Your task to perform on an android device: Toggle the flashlight Image 0: 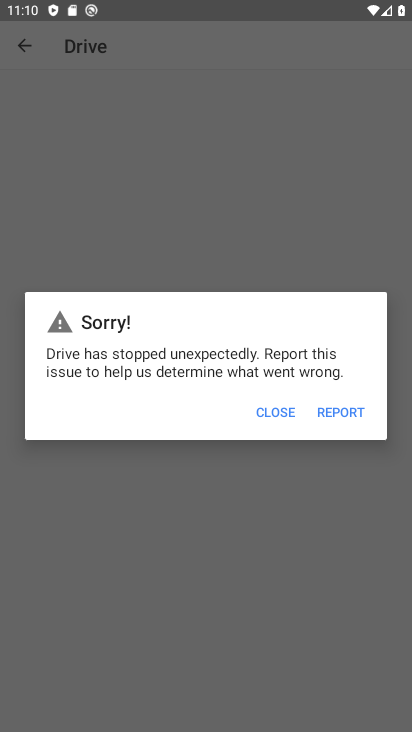
Step 0: press home button
Your task to perform on an android device: Toggle the flashlight Image 1: 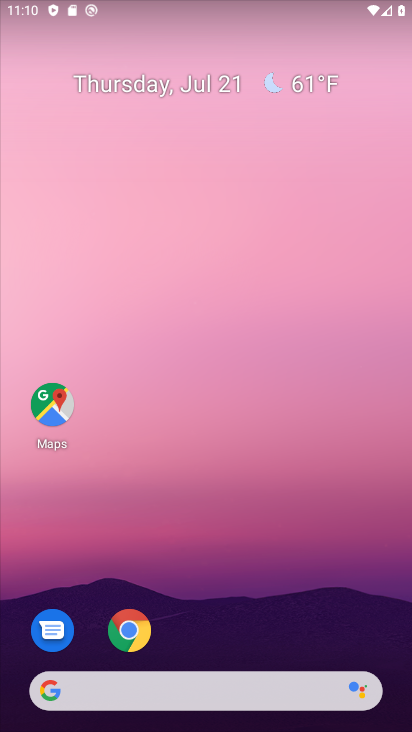
Step 1: drag from (237, 8) to (251, 472)
Your task to perform on an android device: Toggle the flashlight Image 2: 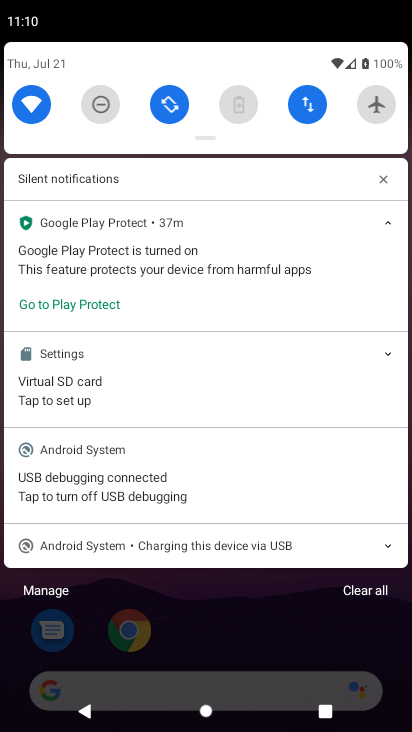
Step 2: drag from (234, 117) to (269, 498)
Your task to perform on an android device: Toggle the flashlight Image 3: 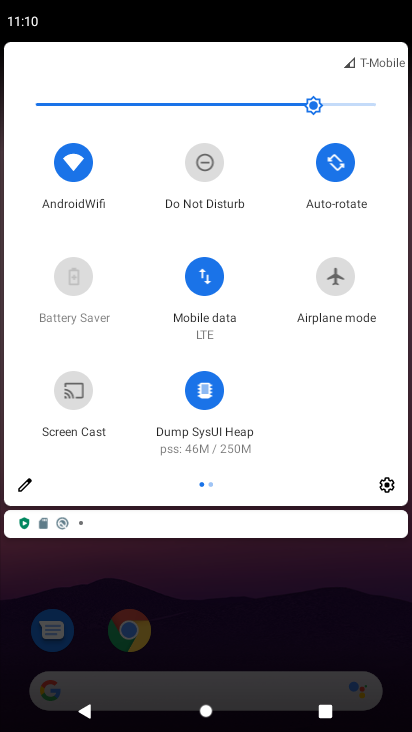
Step 3: drag from (359, 289) to (0, 358)
Your task to perform on an android device: Toggle the flashlight Image 4: 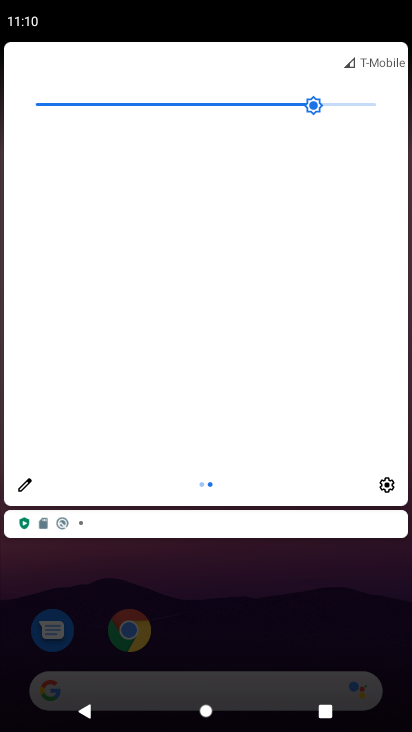
Step 4: click (23, 476)
Your task to perform on an android device: Toggle the flashlight Image 5: 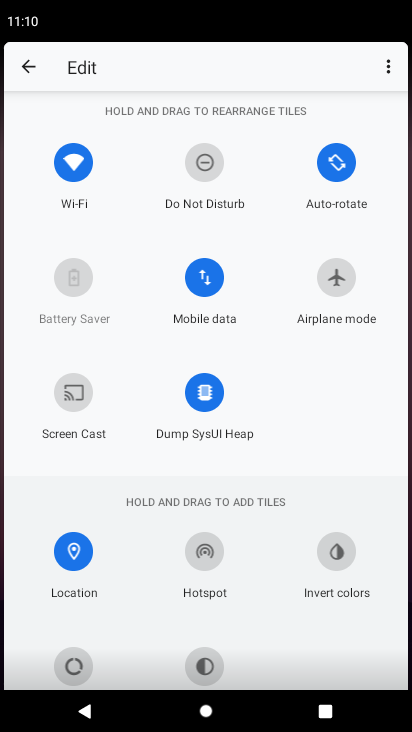
Step 5: task complete